Your task to perform on an android device: Go to internet settings Image 0: 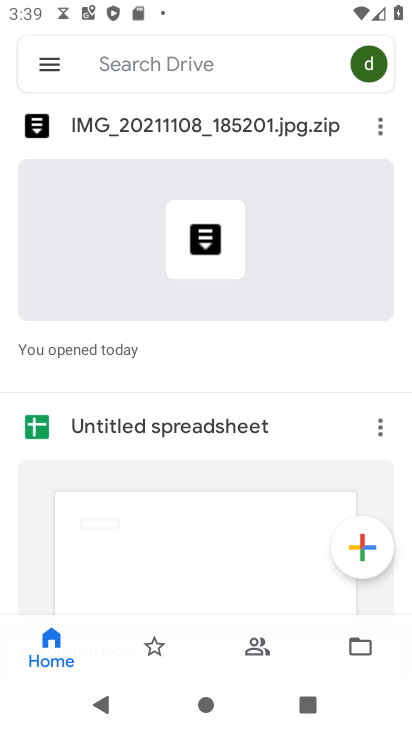
Step 0: press home button
Your task to perform on an android device: Go to internet settings Image 1: 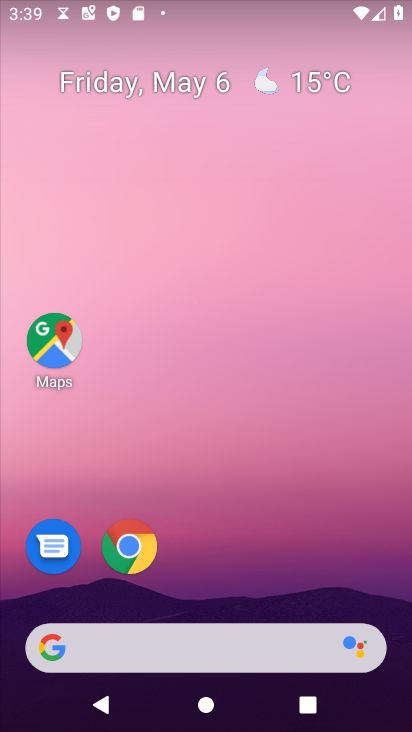
Step 1: drag from (268, 594) to (245, 75)
Your task to perform on an android device: Go to internet settings Image 2: 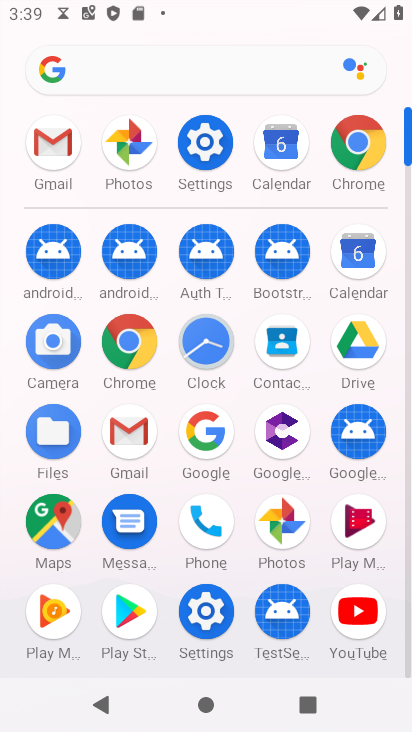
Step 2: click (209, 149)
Your task to perform on an android device: Go to internet settings Image 3: 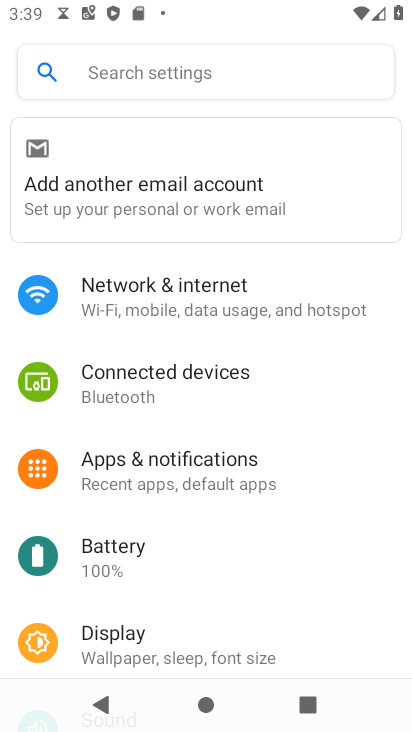
Step 3: click (224, 301)
Your task to perform on an android device: Go to internet settings Image 4: 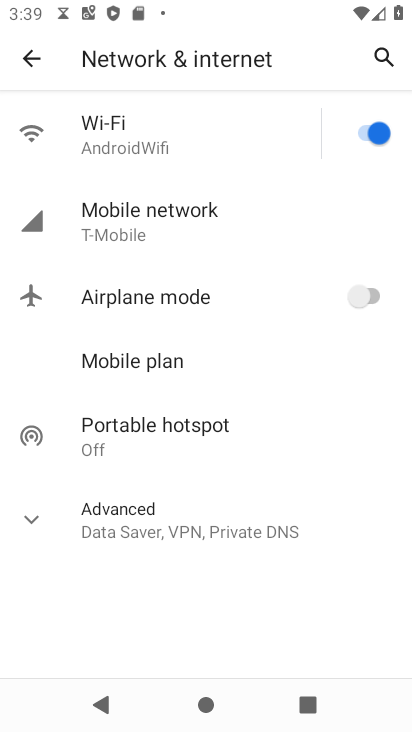
Step 4: task complete